Your task to perform on an android device: change the clock style Image 0: 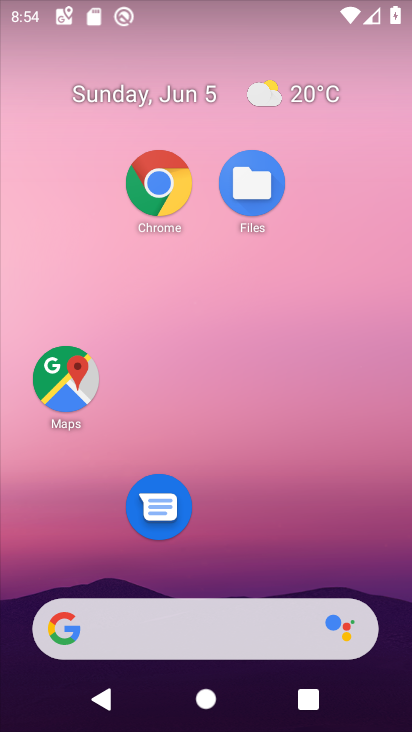
Step 0: drag from (225, 576) to (170, 82)
Your task to perform on an android device: change the clock style Image 1: 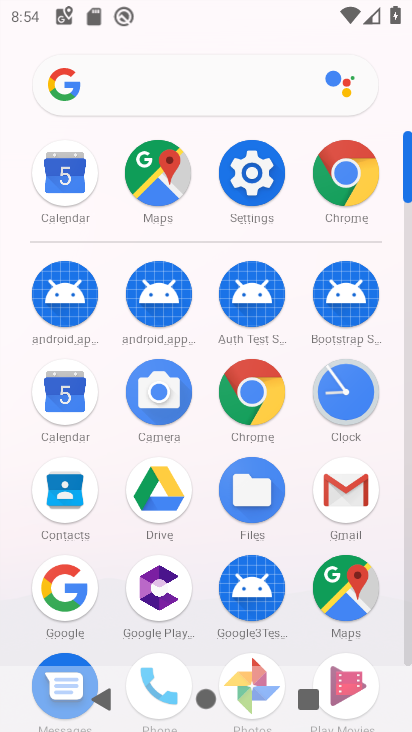
Step 1: click (352, 381)
Your task to perform on an android device: change the clock style Image 2: 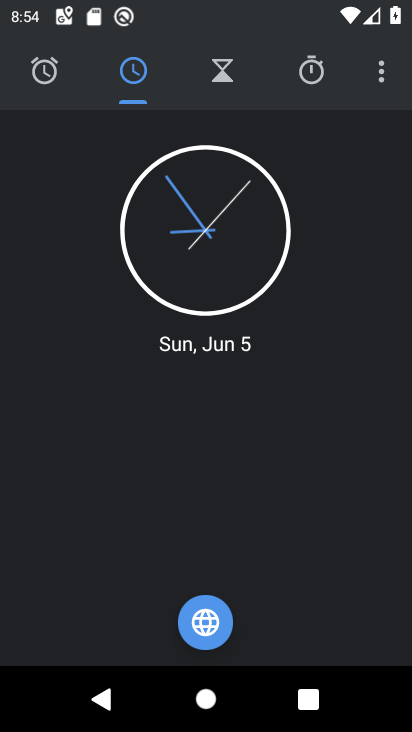
Step 2: click (383, 76)
Your task to perform on an android device: change the clock style Image 3: 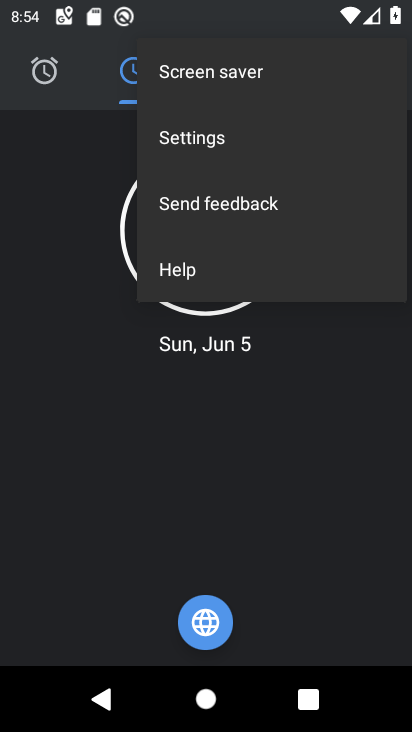
Step 3: click (225, 121)
Your task to perform on an android device: change the clock style Image 4: 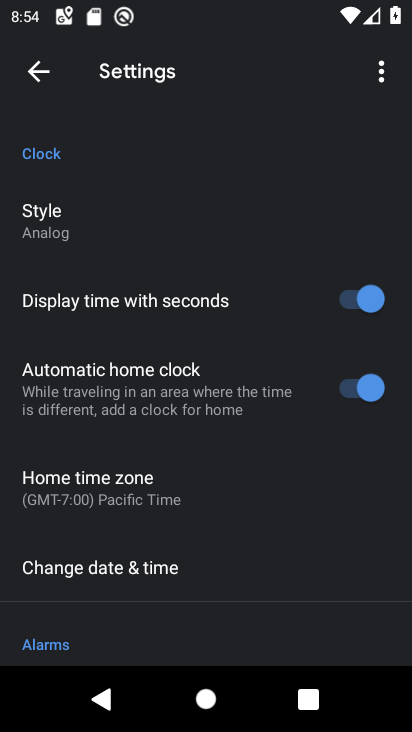
Step 4: click (119, 236)
Your task to perform on an android device: change the clock style Image 5: 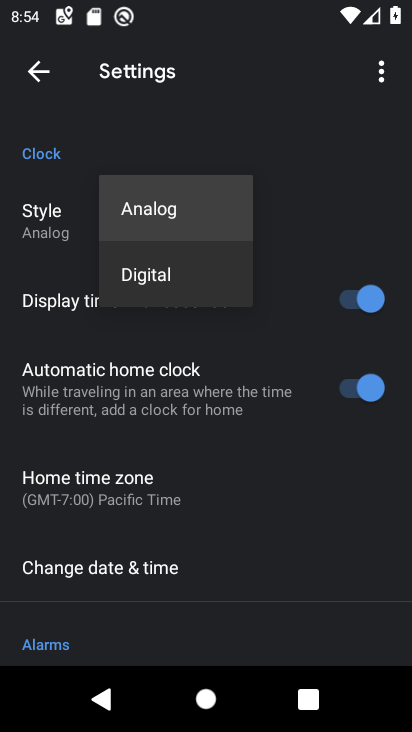
Step 5: click (174, 275)
Your task to perform on an android device: change the clock style Image 6: 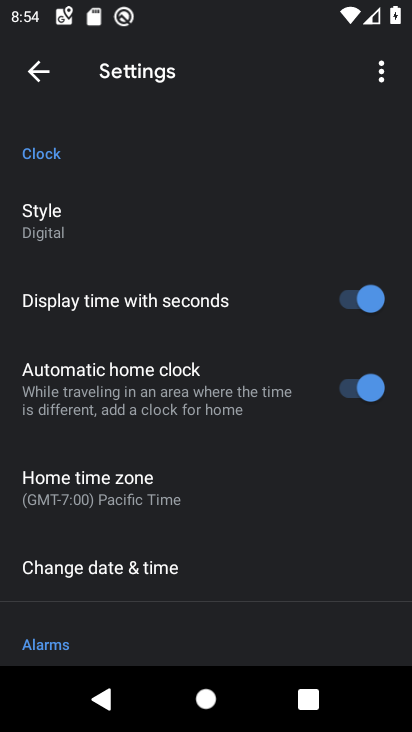
Step 6: task complete